Your task to perform on an android device: make emails show in primary in the gmail app Image 0: 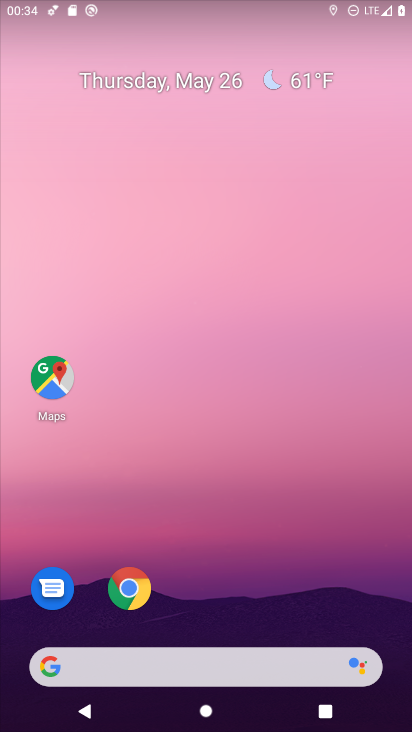
Step 0: drag from (248, 565) to (172, 222)
Your task to perform on an android device: make emails show in primary in the gmail app Image 1: 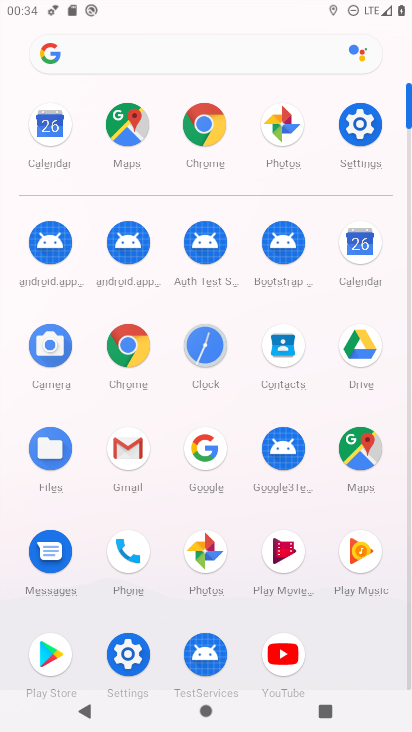
Step 1: click (141, 444)
Your task to perform on an android device: make emails show in primary in the gmail app Image 2: 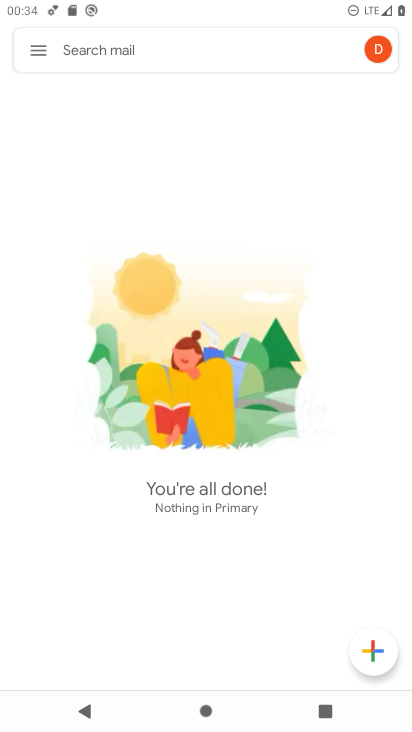
Step 2: click (41, 54)
Your task to perform on an android device: make emails show in primary in the gmail app Image 3: 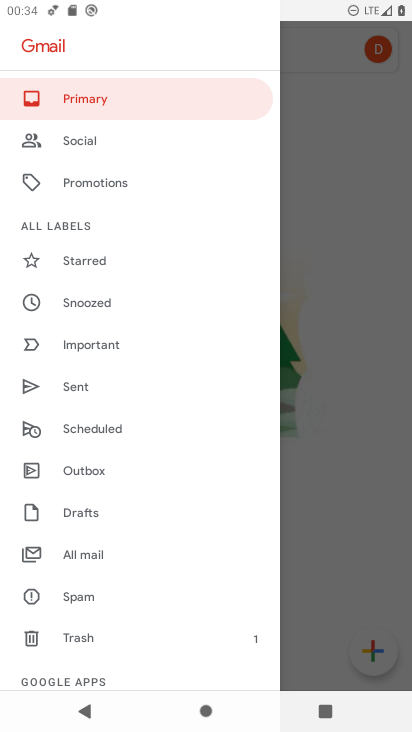
Step 3: click (108, 92)
Your task to perform on an android device: make emails show in primary in the gmail app Image 4: 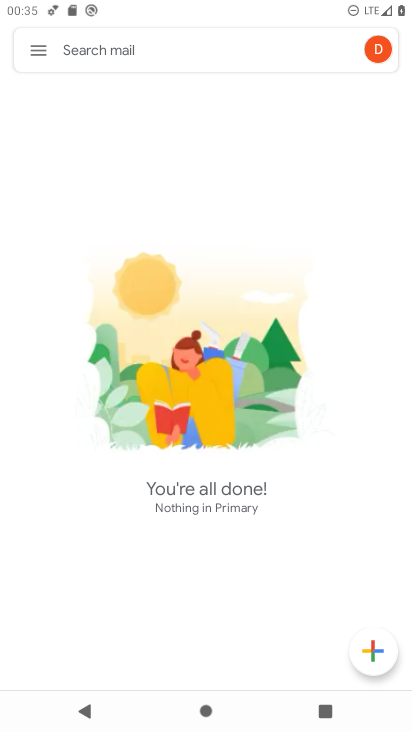
Step 4: task complete